Your task to perform on an android device: Go to Yahoo.com Image 0: 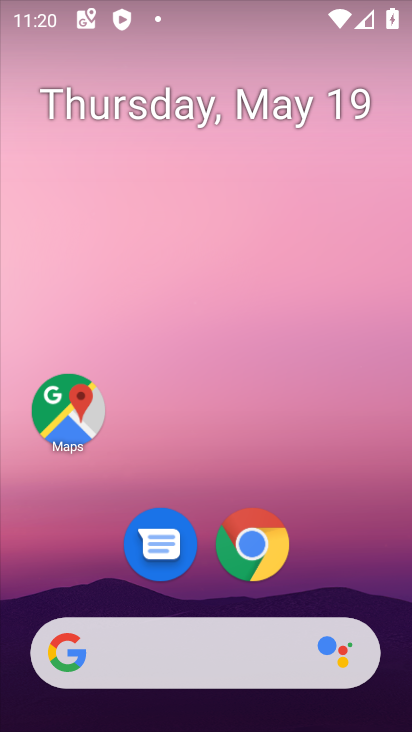
Step 0: drag from (348, 526) to (265, 88)
Your task to perform on an android device: Go to Yahoo.com Image 1: 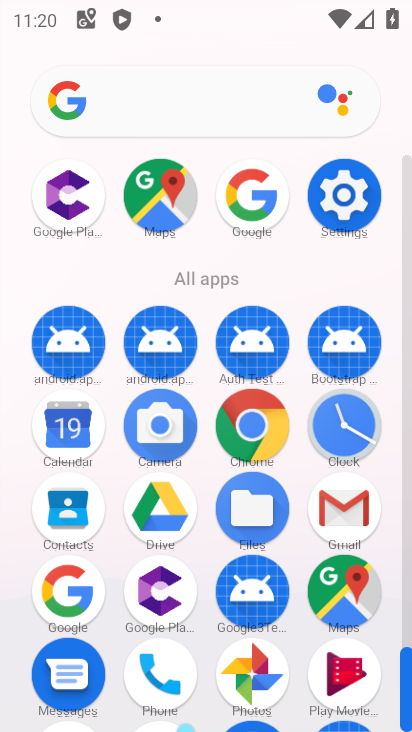
Step 1: click (253, 440)
Your task to perform on an android device: Go to Yahoo.com Image 2: 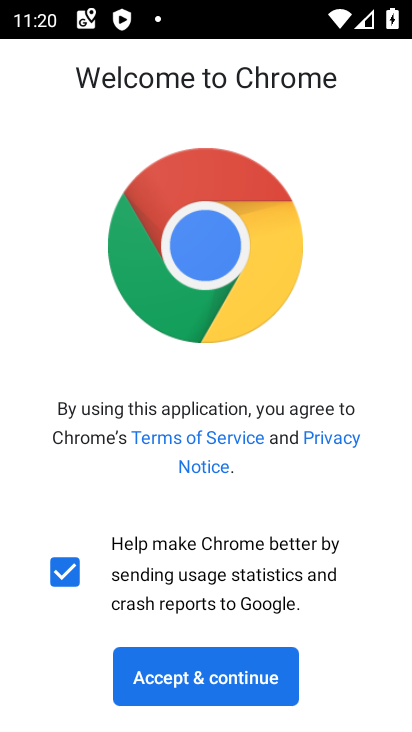
Step 2: click (226, 696)
Your task to perform on an android device: Go to Yahoo.com Image 3: 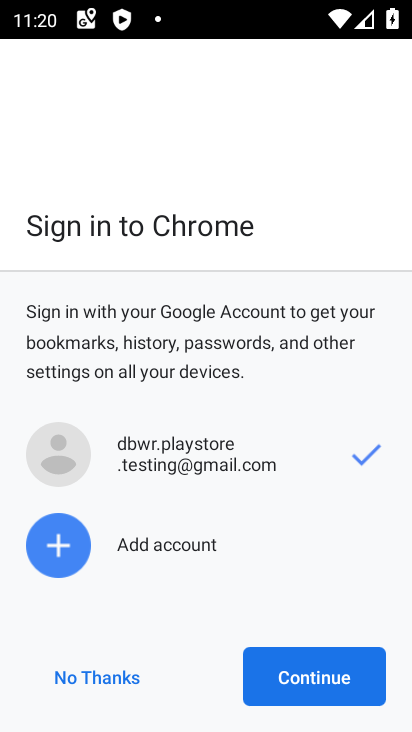
Step 3: click (117, 676)
Your task to perform on an android device: Go to Yahoo.com Image 4: 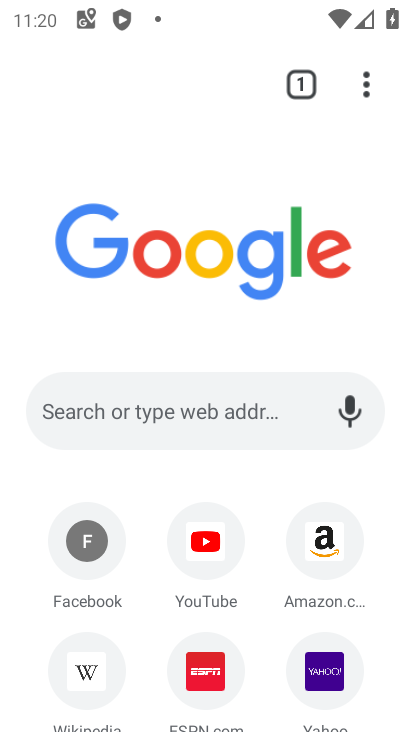
Step 4: click (345, 678)
Your task to perform on an android device: Go to Yahoo.com Image 5: 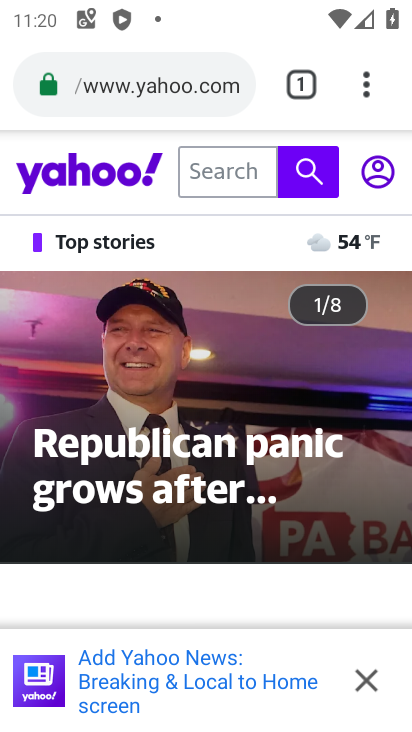
Step 5: task complete